Your task to perform on an android device: When is my next appointment? Image 0: 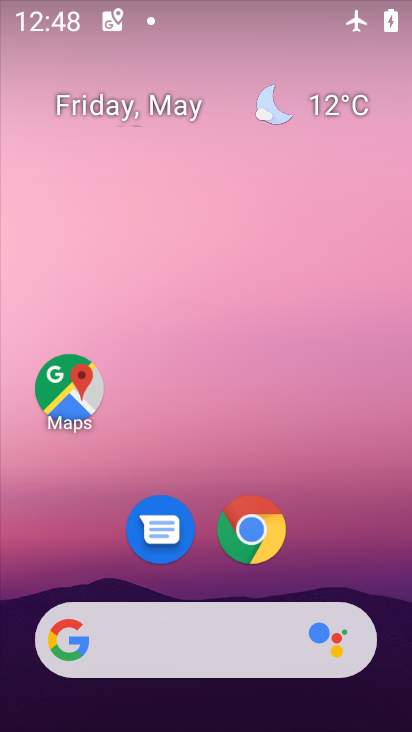
Step 0: drag from (317, 531) to (296, 248)
Your task to perform on an android device: When is my next appointment? Image 1: 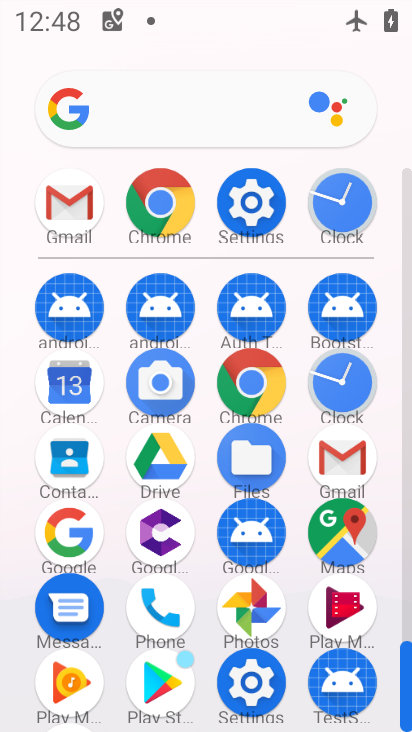
Step 1: click (54, 385)
Your task to perform on an android device: When is my next appointment? Image 2: 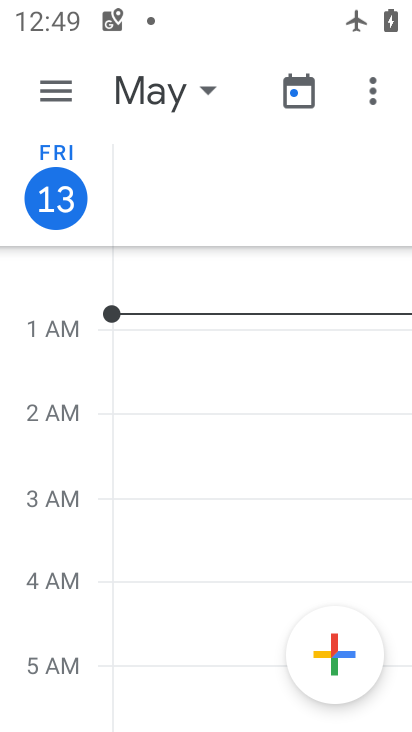
Step 2: click (57, 86)
Your task to perform on an android device: When is my next appointment? Image 3: 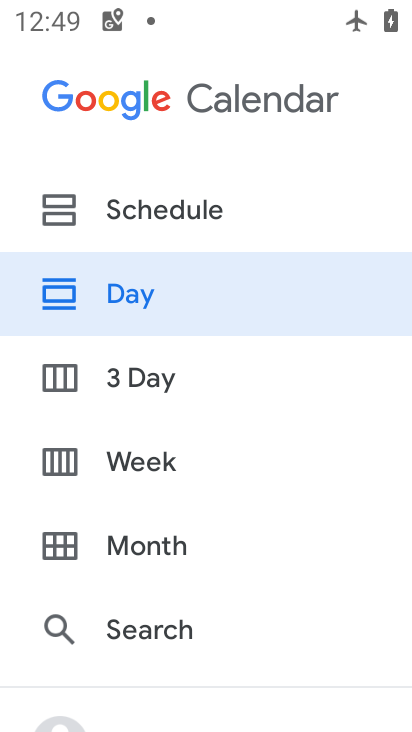
Step 3: click (168, 520)
Your task to perform on an android device: When is my next appointment? Image 4: 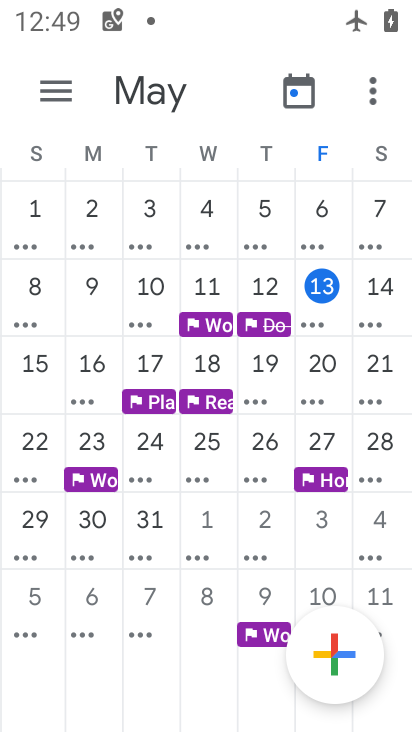
Step 4: click (392, 285)
Your task to perform on an android device: When is my next appointment? Image 5: 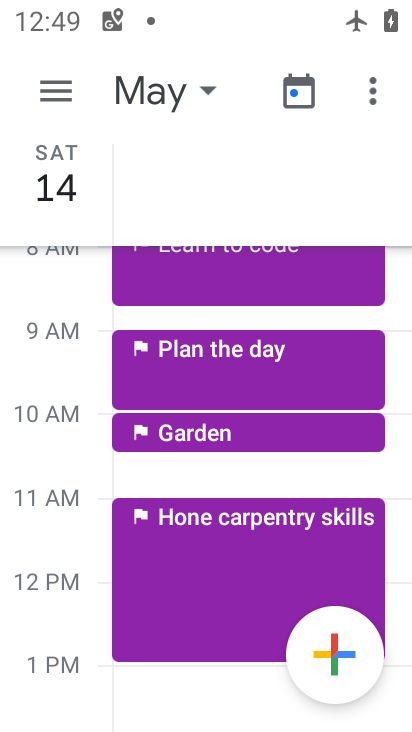
Step 5: task complete